Your task to perform on an android device: Go to eBay Image 0: 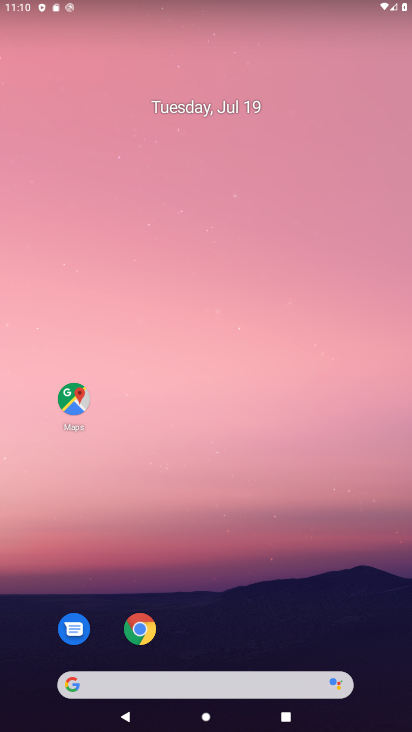
Step 0: drag from (210, 561) to (265, 93)
Your task to perform on an android device: Go to eBay Image 1: 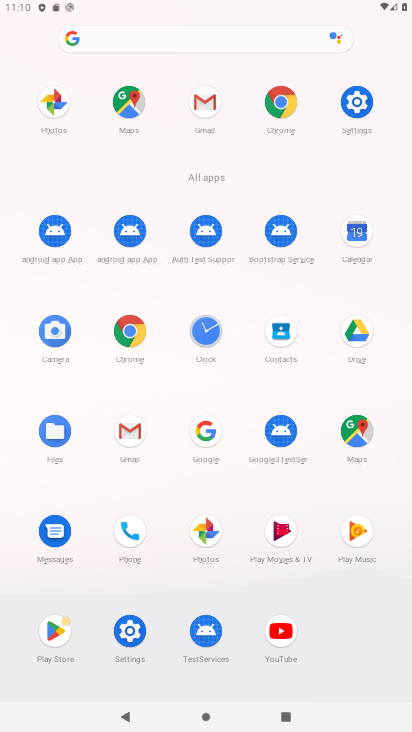
Step 1: click (131, 334)
Your task to perform on an android device: Go to eBay Image 2: 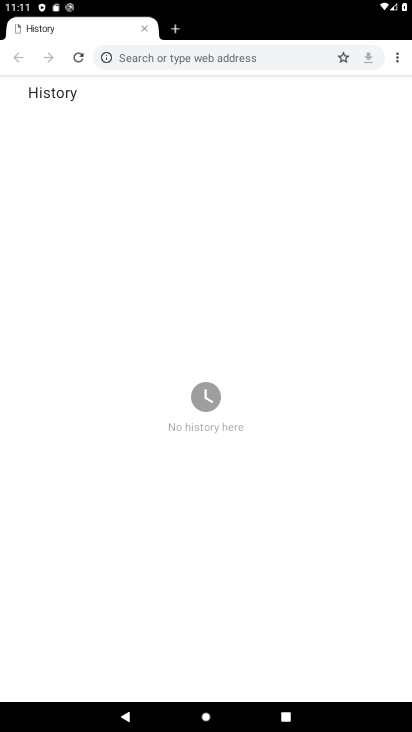
Step 2: click (253, 46)
Your task to perform on an android device: Go to eBay Image 3: 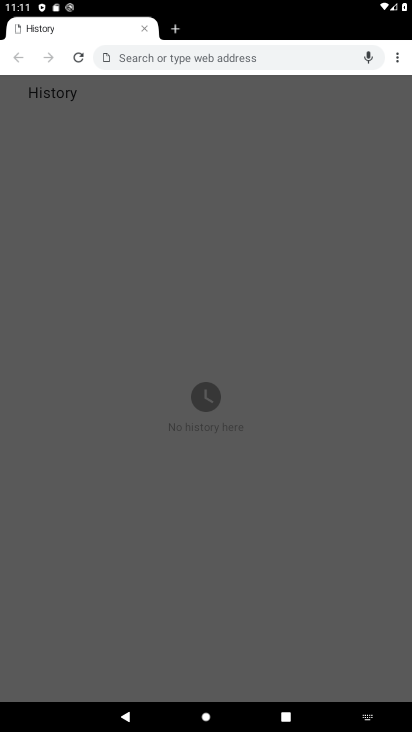
Step 3: type "ebay"
Your task to perform on an android device: Go to eBay Image 4: 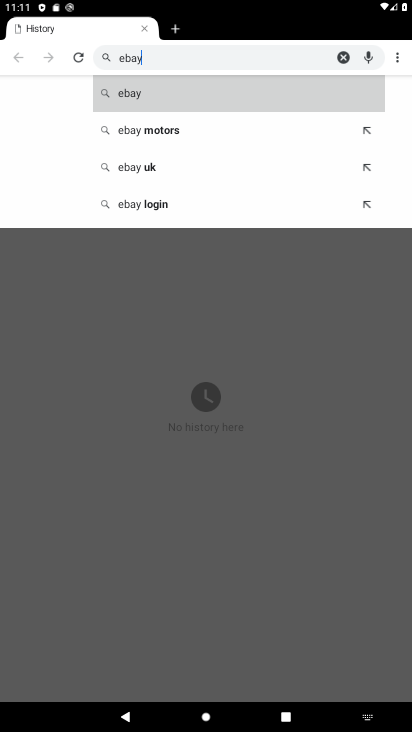
Step 4: click (136, 98)
Your task to perform on an android device: Go to eBay Image 5: 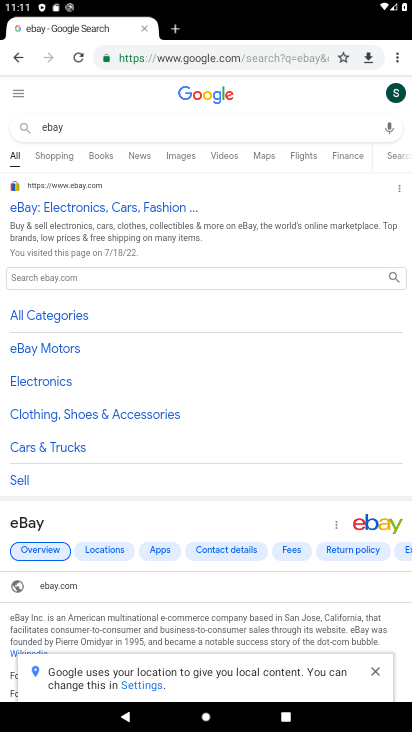
Step 5: click (95, 201)
Your task to perform on an android device: Go to eBay Image 6: 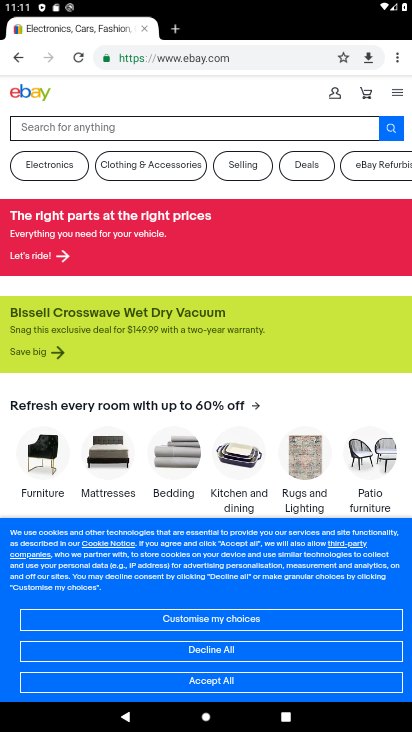
Step 6: task complete